Your task to perform on an android device: empty trash in google photos Image 0: 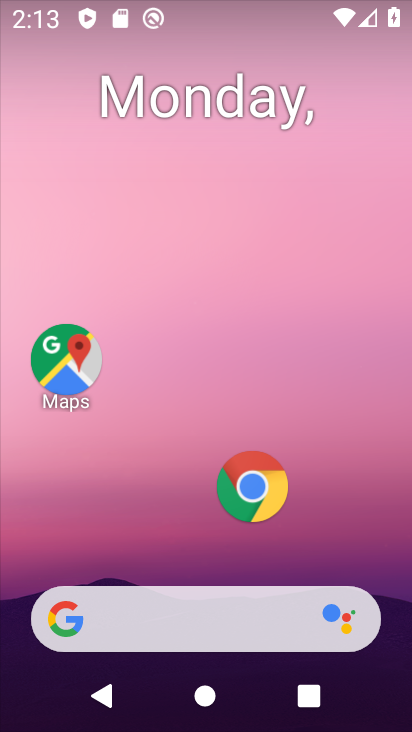
Step 0: drag from (186, 549) to (230, 138)
Your task to perform on an android device: empty trash in google photos Image 1: 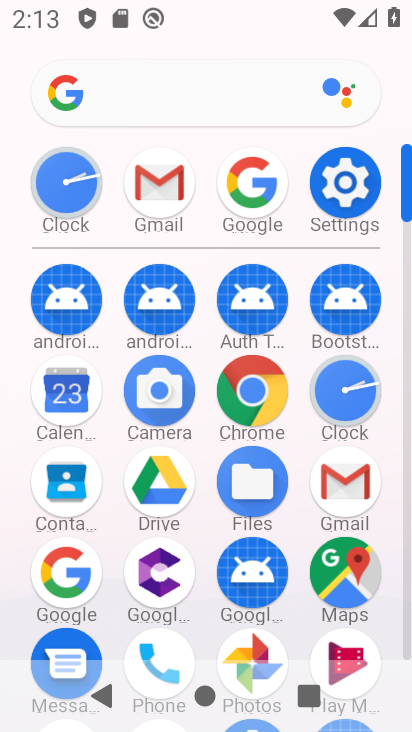
Step 1: drag from (214, 605) to (260, 397)
Your task to perform on an android device: empty trash in google photos Image 2: 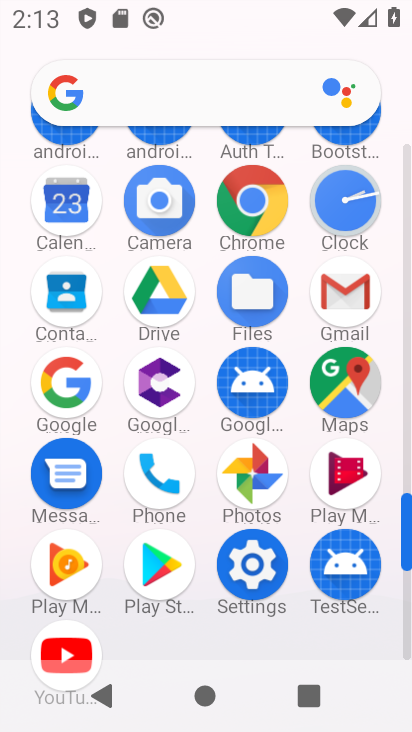
Step 2: click (244, 481)
Your task to perform on an android device: empty trash in google photos Image 3: 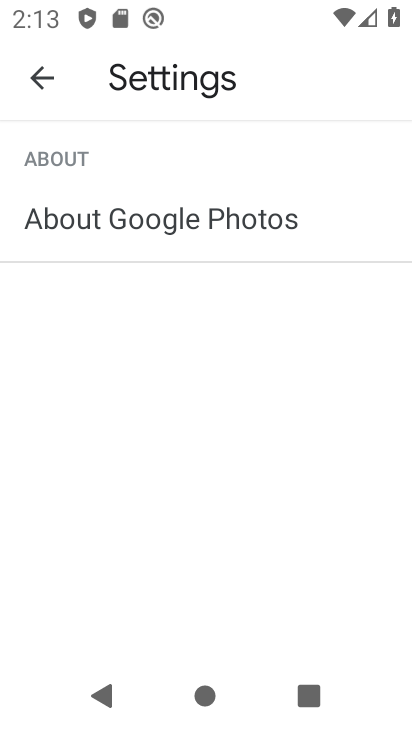
Step 3: click (48, 79)
Your task to perform on an android device: empty trash in google photos Image 4: 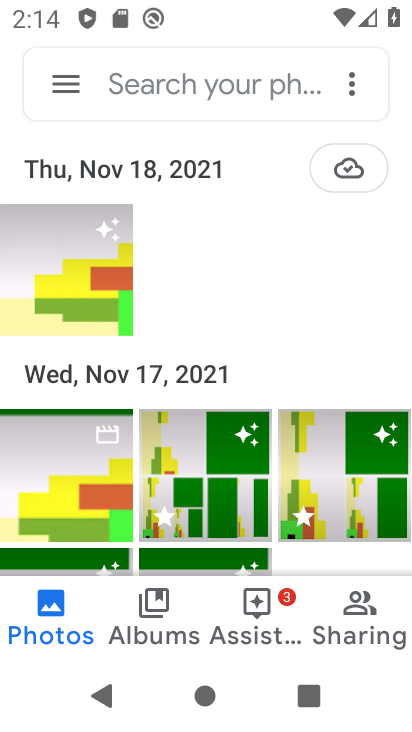
Step 4: click (78, 82)
Your task to perform on an android device: empty trash in google photos Image 5: 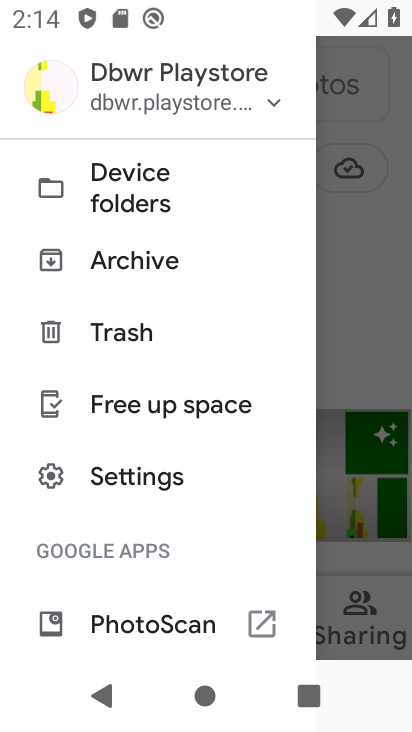
Step 5: click (133, 338)
Your task to perform on an android device: empty trash in google photos Image 6: 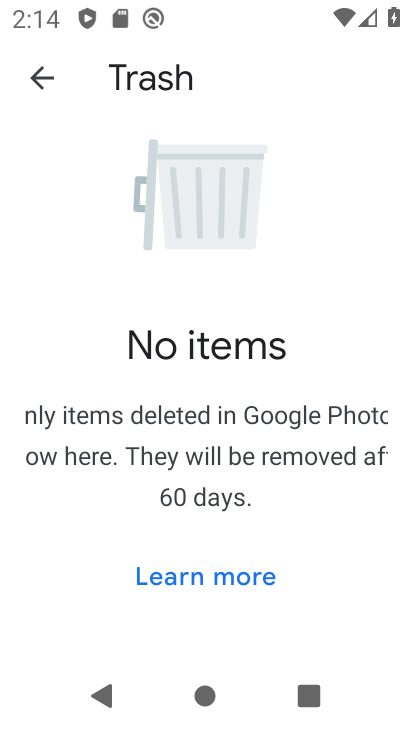
Step 6: task complete